Your task to perform on an android device: set default search engine in the chrome app Image 0: 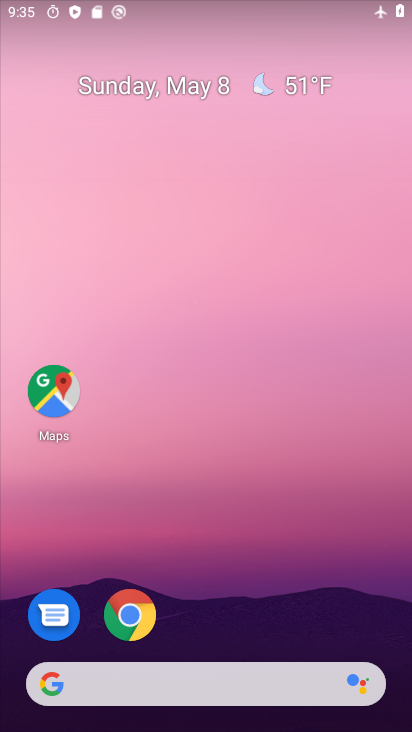
Step 0: click (142, 604)
Your task to perform on an android device: set default search engine in the chrome app Image 1: 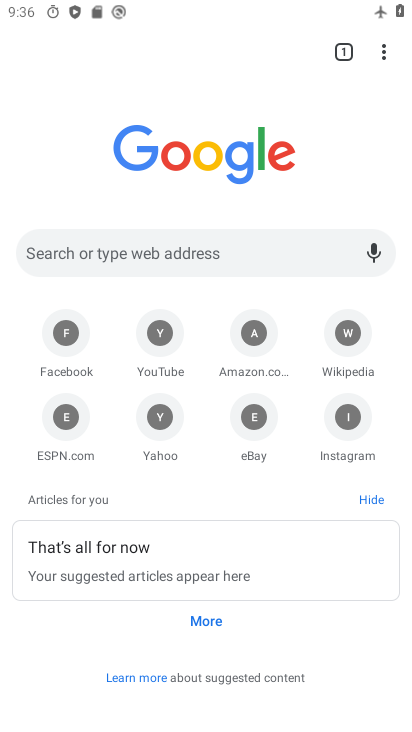
Step 1: drag from (379, 58) to (224, 432)
Your task to perform on an android device: set default search engine in the chrome app Image 2: 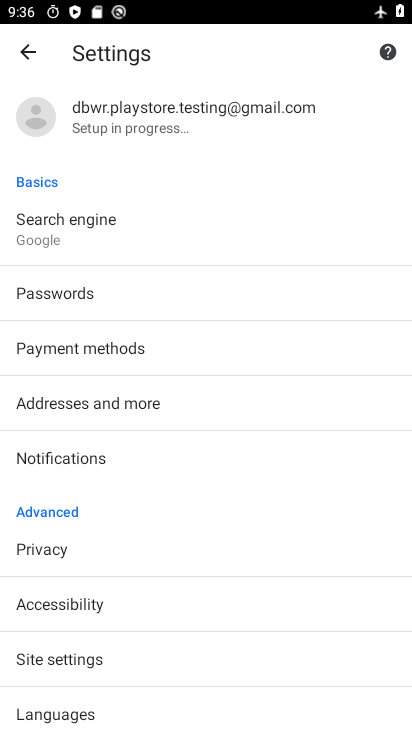
Step 2: click (114, 242)
Your task to perform on an android device: set default search engine in the chrome app Image 3: 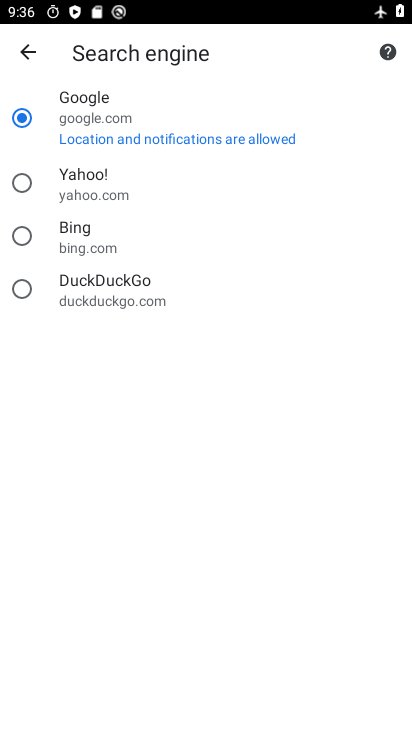
Step 3: click (48, 193)
Your task to perform on an android device: set default search engine in the chrome app Image 4: 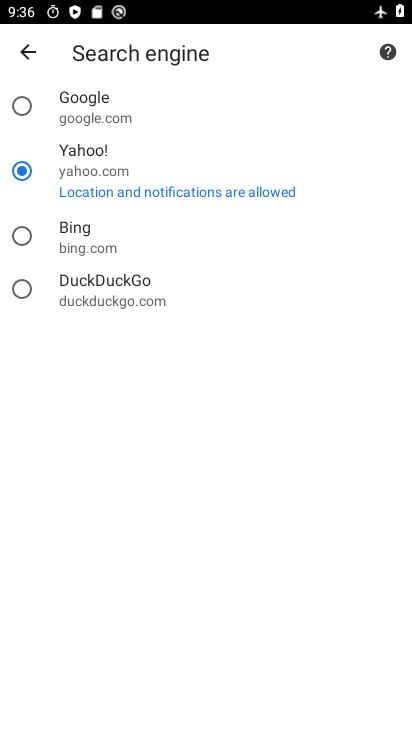
Step 4: task complete